Your task to perform on an android device: set the stopwatch Image 0: 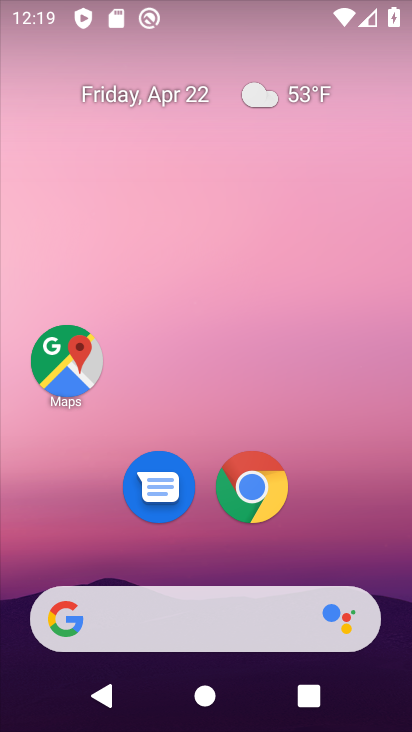
Step 0: drag from (187, 563) to (181, 68)
Your task to perform on an android device: set the stopwatch Image 1: 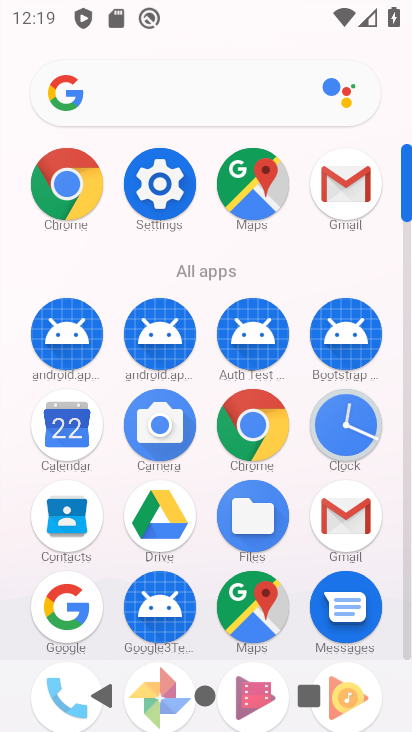
Step 1: click (355, 402)
Your task to perform on an android device: set the stopwatch Image 2: 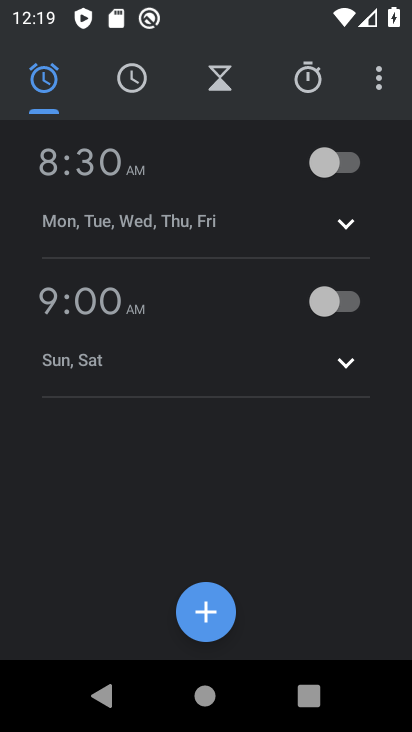
Step 2: click (312, 106)
Your task to perform on an android device: set the stopwatch Image 3: 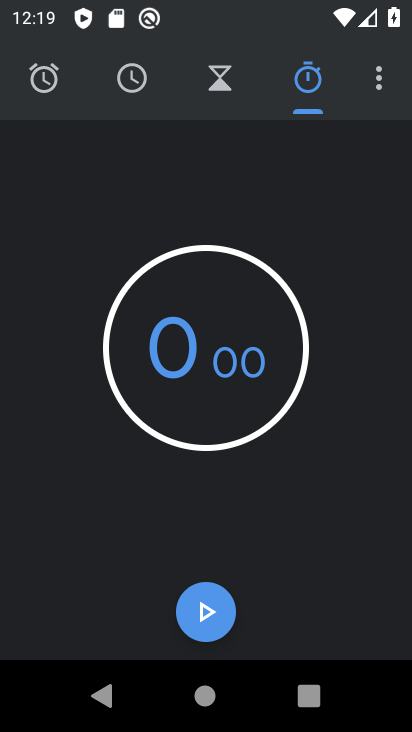
Step 3: task complete